Your task to perform on an android device: toggle priority inbox in the gmail app Image 0: 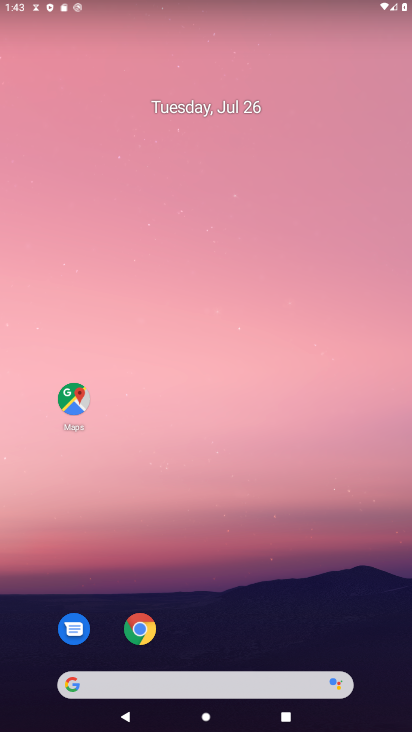
Step 0: drag from (293, 541) to (306, 32)
Your task to perform on an android device: toggle priority inbox in the gmail app Image 1: 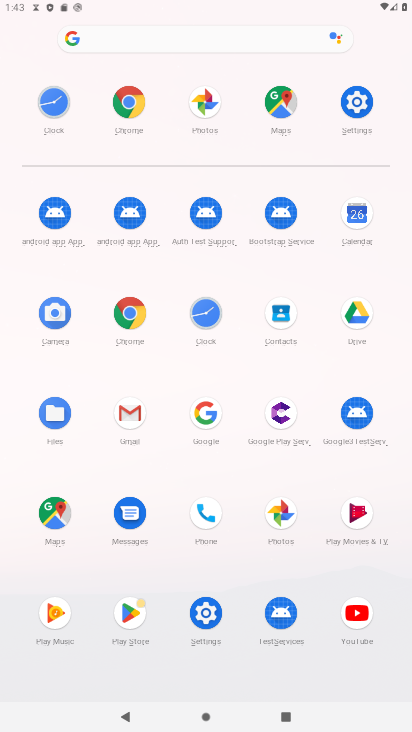
Step 1: click (129, 415)
Your task to perform on an android device: toggle priority inbox in the gmail app Image 2: 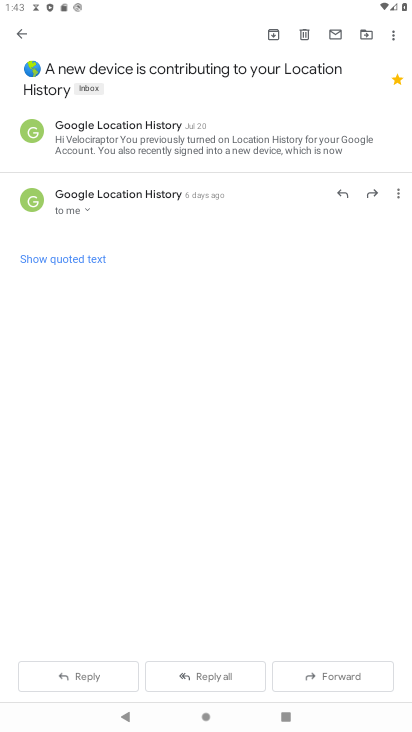
Step 2: click (24, 34)
Your task to perform on an android device: toggle priority inbox in the gmail app Image 3: 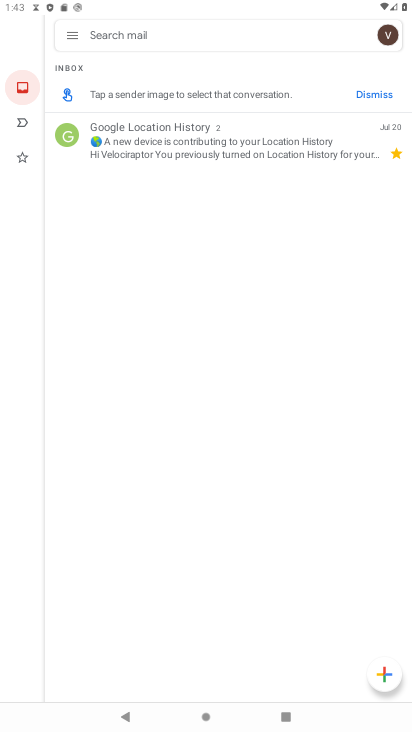
Step 3: click (70, 32)
Your task to perform on an android device: toggle priority inbox in the gmail app Image 4: 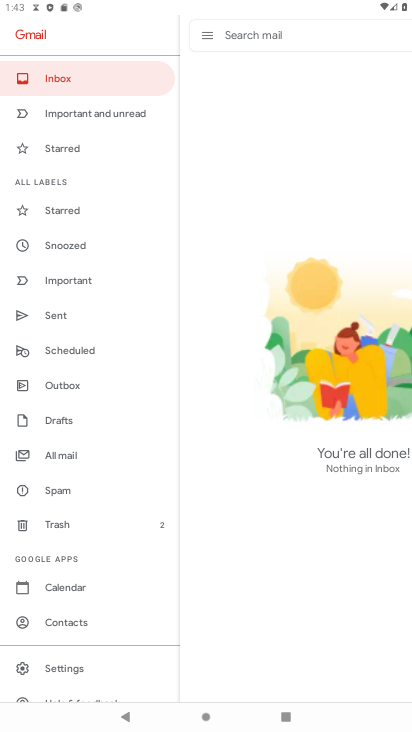
Step 4: click (96, 673)
Your task to perform on an android device: toggle priority inbox in the gmail app Image 5: 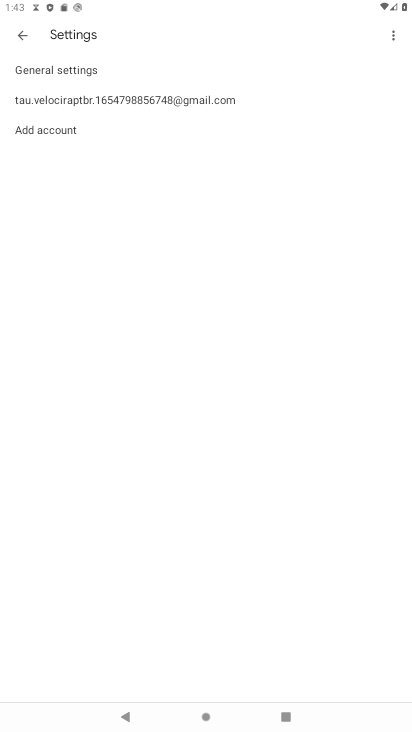
Step 5: click (76, 100)
Your task to perform on an android device: toggle priority inbox in the gmail app Image 6: 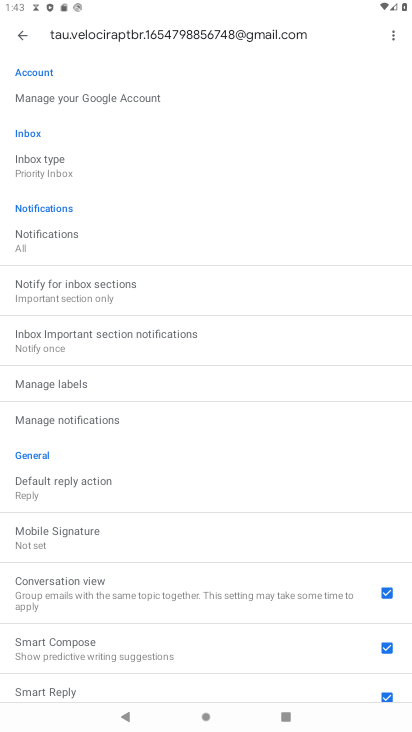
Step 6: click (47, 170)
Your task to perform on an android device: toggle priority inbox in the gmail app Image 7: 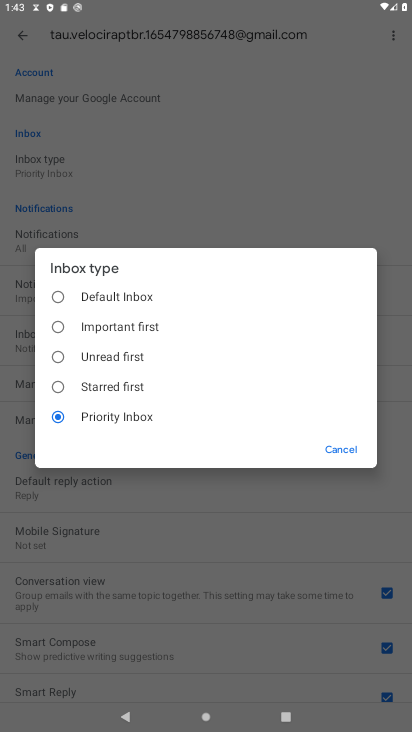
Step 7: click (116, 296)
Your task to perform on an android device: toggle priority inbox in the gmail app Image 8: 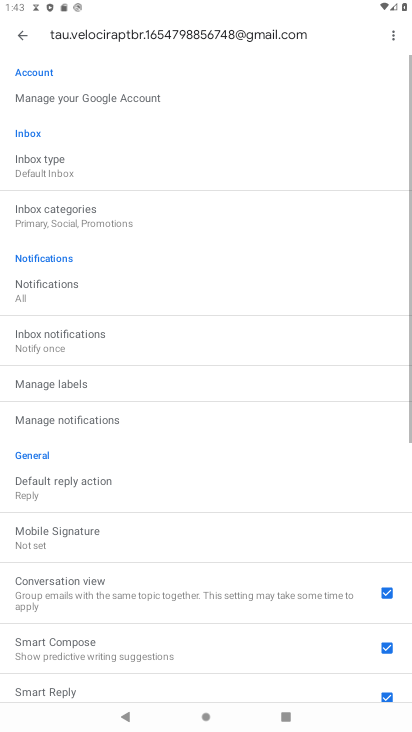
Step 8: task complete